Your task to perform on an android device: Search for Mexican restaurants on Maps Image 0: 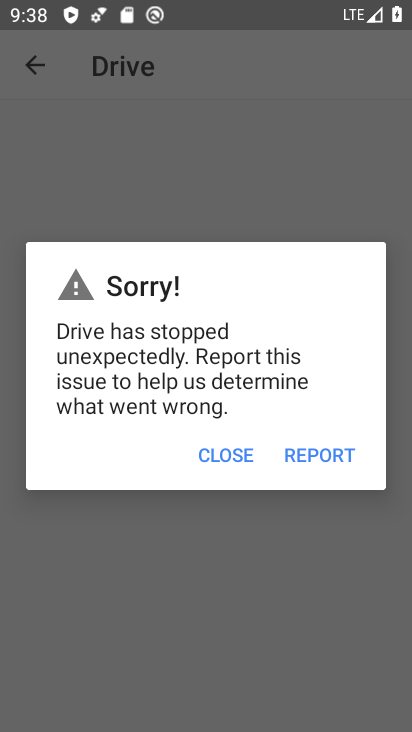
Step 0: press home button
Your task to perform on an android device: Search for Mexican restaurants on Maps Image 1: 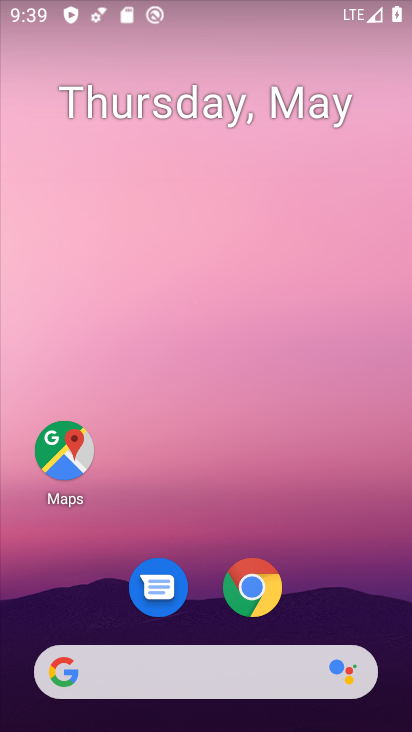
Step 1: click (66, 454)
Your task to perform on an android device: Search for Mexican restaurants on Maps Image 2: 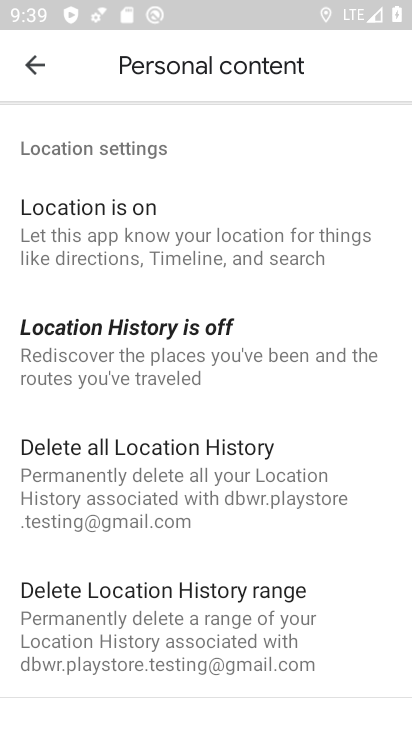
Step 2: click (38, 65)
Your task to perform on an android device: Search for Mexican restaurants on Maps Image 3: 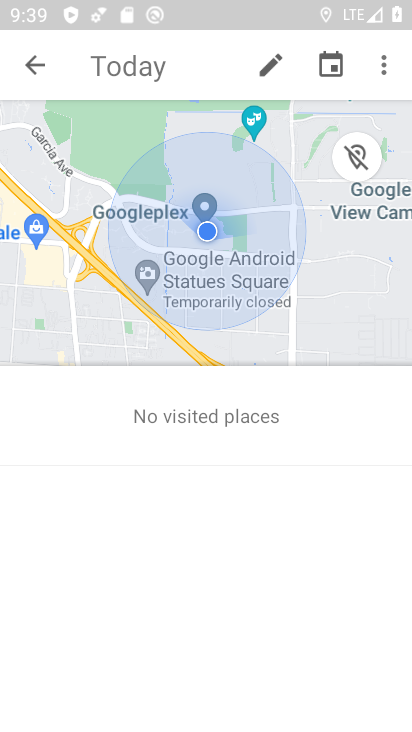
Step 3: click (34, 74)
Your task to perform on an android device: Search for Mexican restaurants on Maps Image 4: 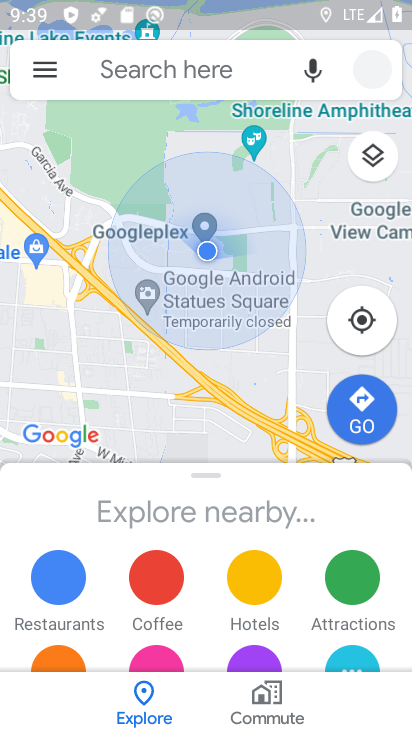
Step 4: click (130, 75)
Your task to perform on an android device: Search for Mexican restaurants on Maps Image 5: 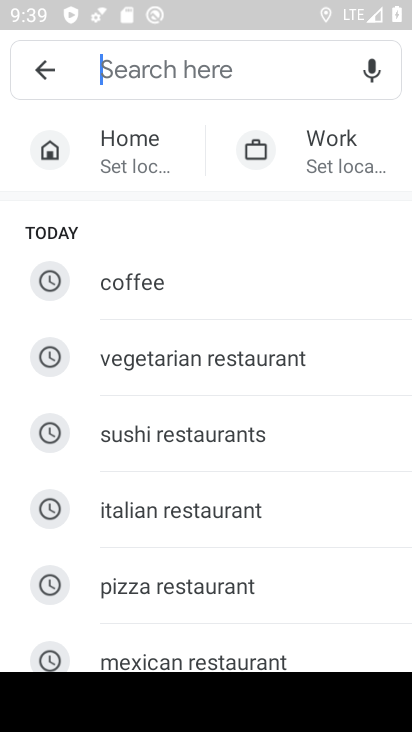
Step 5: type "mexican restaurant"
Your task to perform on an android device: Search for Mexican restaurants on Maps Image 6: 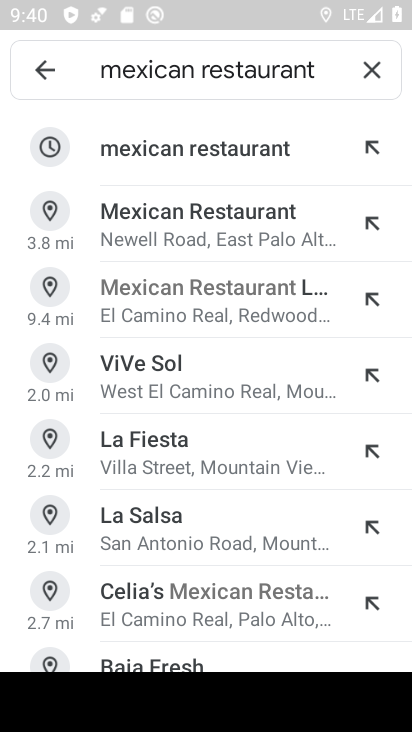
Step 6: click (174, 158)
Your task to perform on an android device: Search for Mexican restaurants on Maps Image 7: 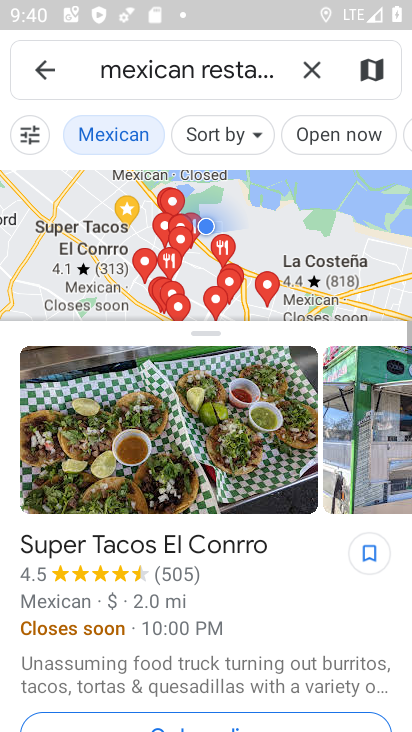
Step 7: task complete